Your task to perform on an android device: Is it going to rain this weekend? Image 0: 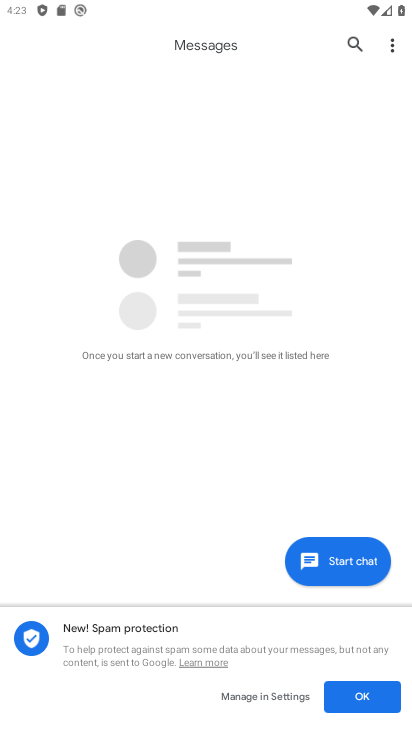
Step 0: press home button
Your task to perform on an android device: Is it going to rain this weekend? Image 1: 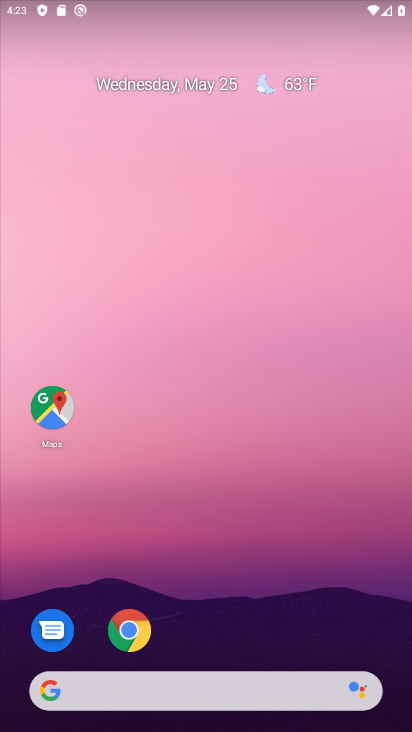
Step 1: click (269, 79)
Your task to perform on an android device: Is it going to rain this weekend? Image 2: 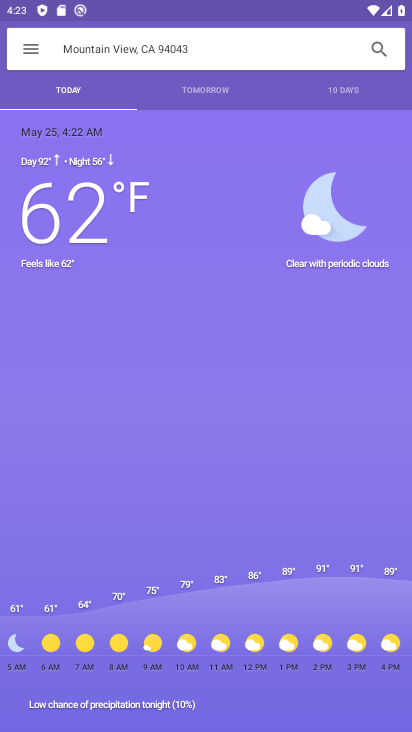
Step 2: click (324, 87)
Your task to perform on an android device: Is it going to rain this weekend? Image 3: 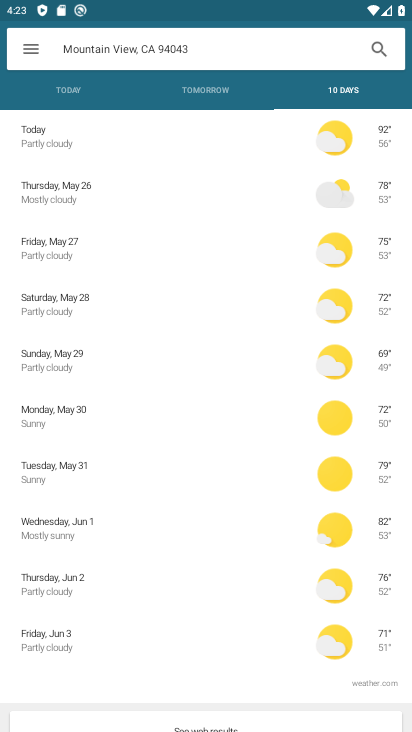
Step 3: task complete